Your task to perform on an android device: check data usage Image 0: 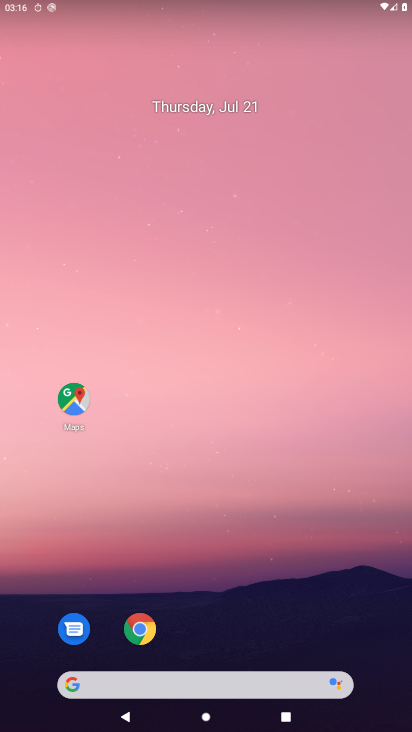
Step 0: drag from (96, 601) to (320, 686)
Your task to perform on an android device: check data usage Image 1: 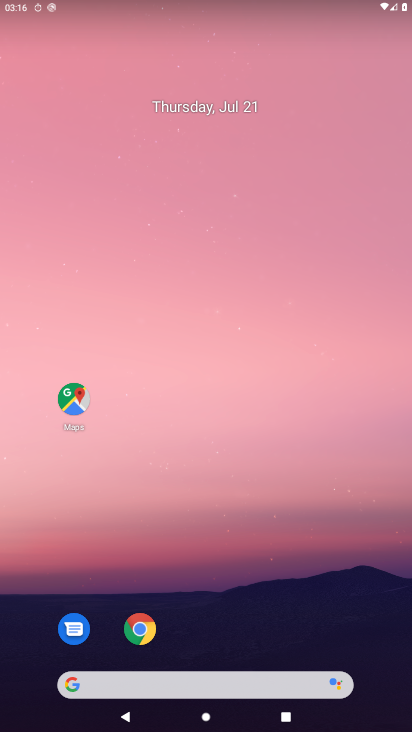
Step 1: drag from (45, 654) to (345, 33)
Your task to perform on an android device: check data usage Image 2: 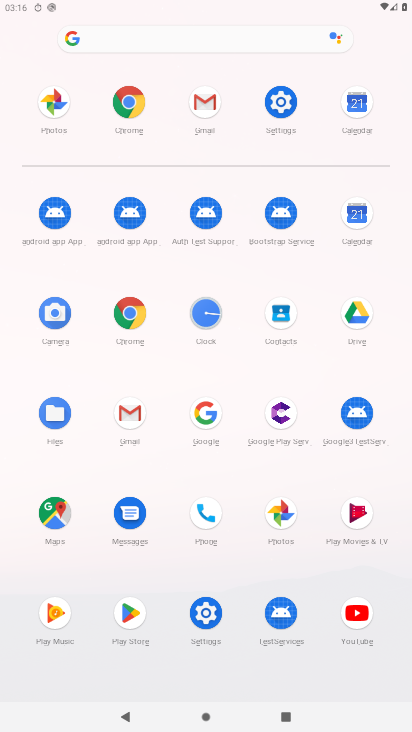
Step 2: click (199, 617)
Your task to perform on an android device: check data usage Image 3: 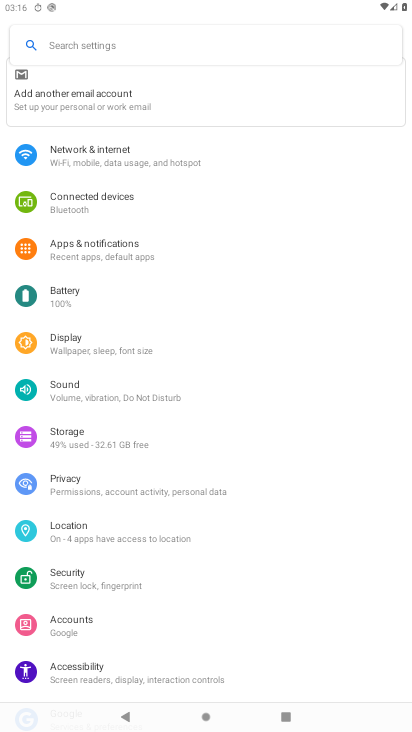
Step 3: click (127, 152)
Your task to perform on an android device: check data usage Image 4: 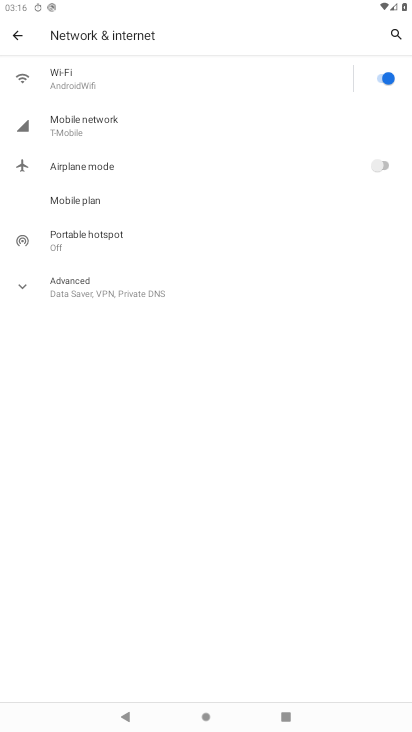
Step 4: click (94, 123)
Your task to perform on an android device: check data usage Image 5: 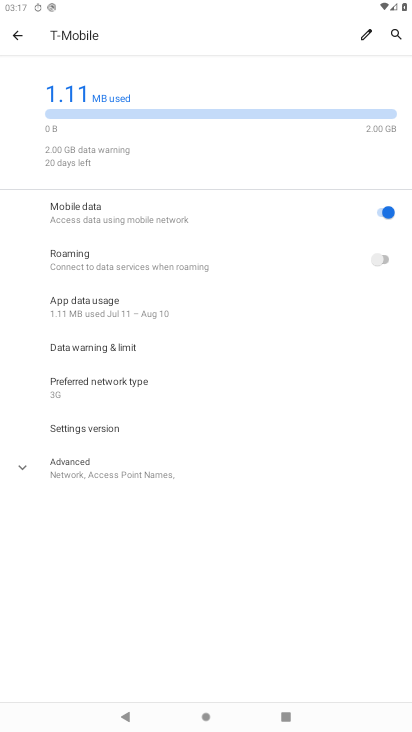
Step 5: task complete